Your task to perform on an android device: Is it going to rain today? Image 0: 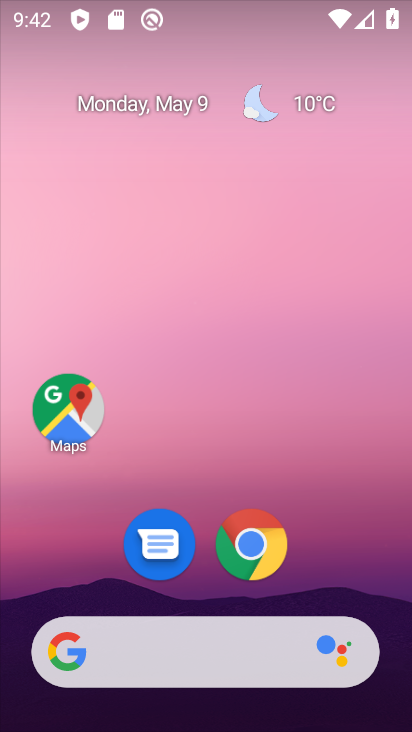
Step 0: click (299, 101)
Your task to perform on an android device: Is it going to rain today? Image 1: 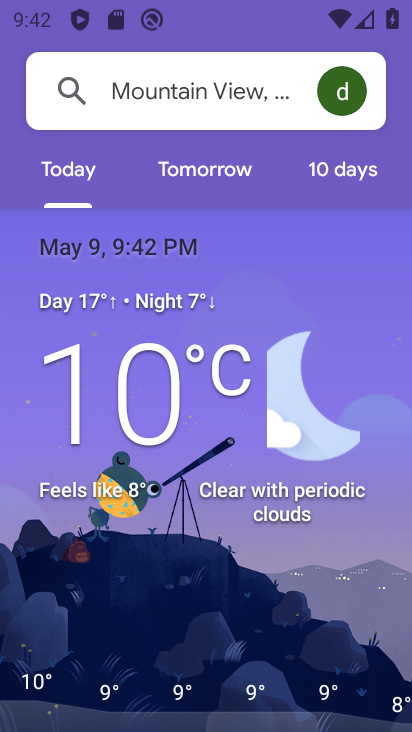
Step 1: task complete